Your task to perform on an android device: open app "Google Pay: Save, Pay, Manage" (install if not already installed) Image 0: 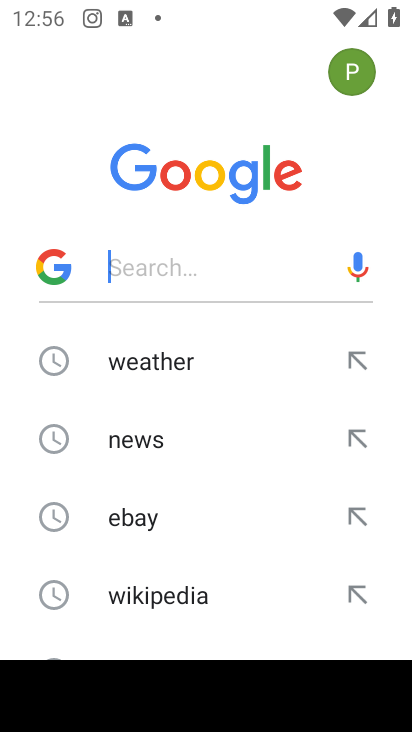
Step 0: press back button
Your task to perform on an android device: open app "Google Pay: Save, Pay, Manage" (install if not already installed) Image 1: 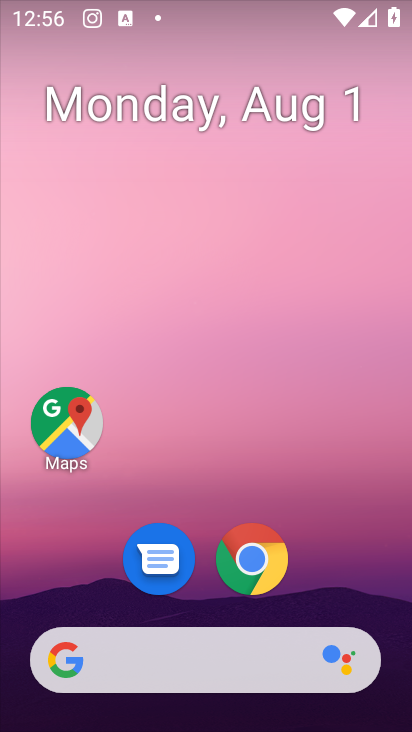
Step 1: drag from (94, 569) to (254, 3)
Your task to perform on an android device: open app "Google Pay: Save, Pay, Manage" (install if not already installed) Image 2: 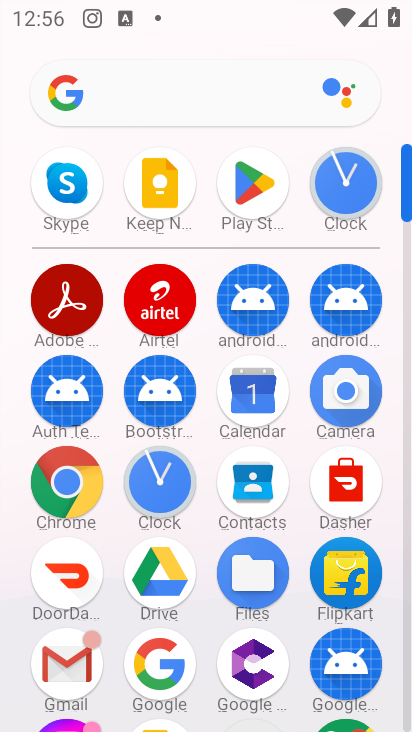
Step 2: drag from (197, 591) to (289, 154)
Your task to perform on an android device: open app "Google Pay: Save, Pay, Manage" (install if not already installed) Image 3: 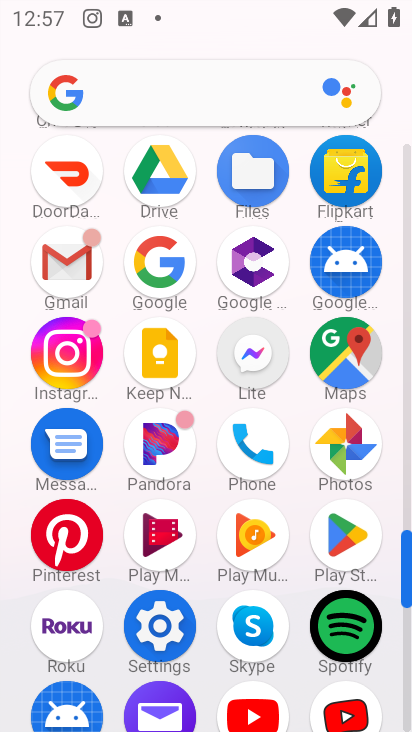
Step 3: drag from (214, 603) to (300, 122)
Your task to perform on an android device: open app "Google Pay: Save, Pay, Manage" (install if not already installed) Image 4: 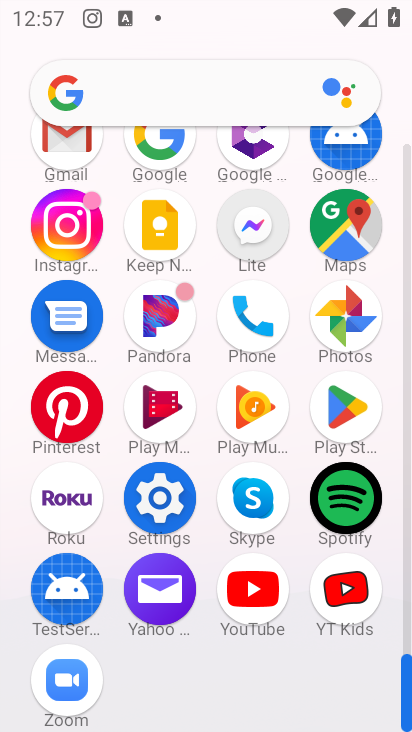
Step 4: click (126, 89)
Your task to perform on an android device: open app "Google Pay: Save, Pay, Manage" (install if not already installed) Image 5: 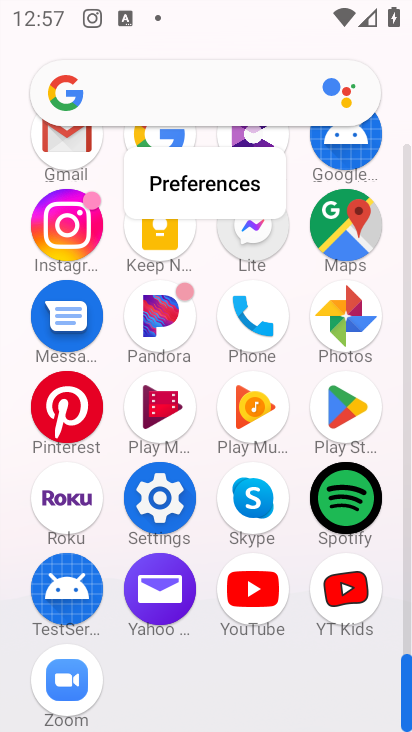
Step 5: type "google pay"
Your task to perform on an android device: open app "Google Pay: Save, Pay, Manage" (install if not already installed) Image 6: 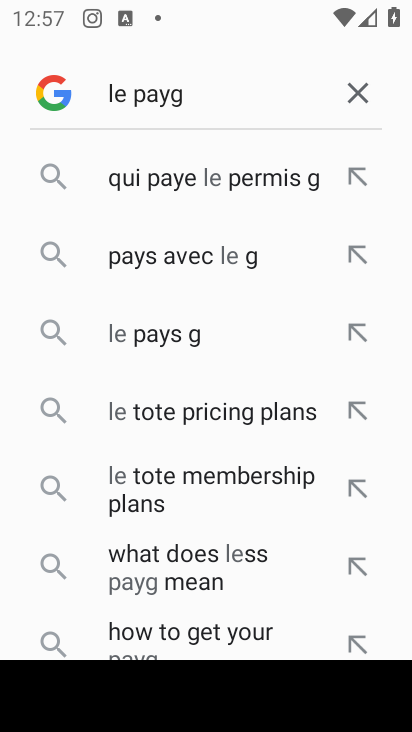
Step 6: click (353, 86)
Your task to perform on an android device: open app "Google Pay: Save, Pay, Manage" (install if not already installed) Image 7: 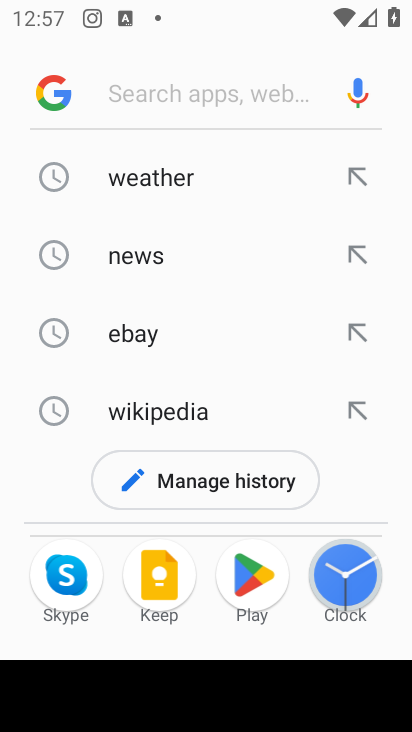
Step 7: press home button
Your task to perform on an android device: open app "Google Pay: Save, Pay, Manage" (install if not already installed) Image 8: 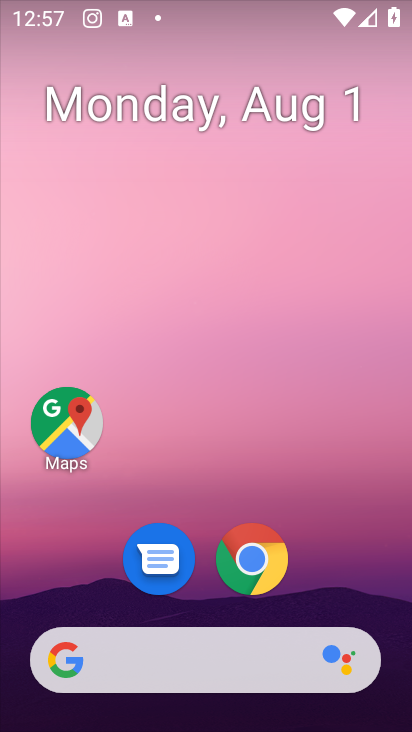
Step 8: drag from (68, 543) to (237, 11)
Your task to perform on an android device: open app "Google Pay: Save, Pay, Manage" (install if not already installed) Image 9: 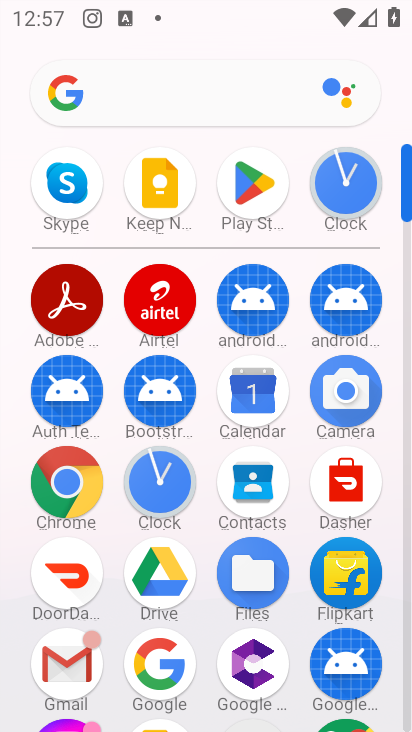
Step 9: click (259, 186)
Your task to perform on an android device: open app "Google Pay: Save, Pay, Manage" (install if not already installed) Image 10: 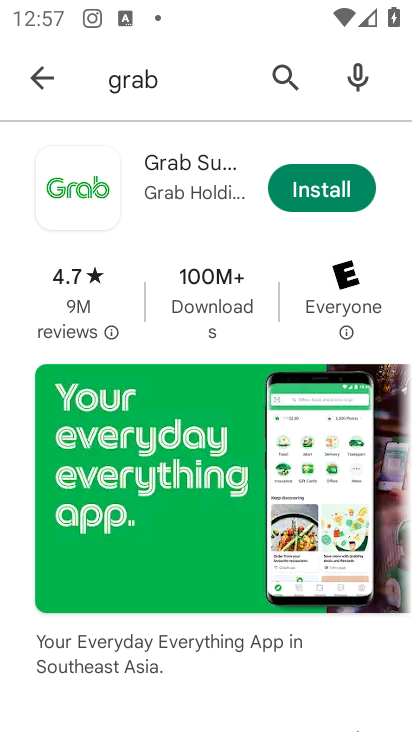
Step 10: click (291, 74)
Your task to perform on an android device: open app "Google Pay: Save, Pay, Manage" (install if not already installed) Image 11: 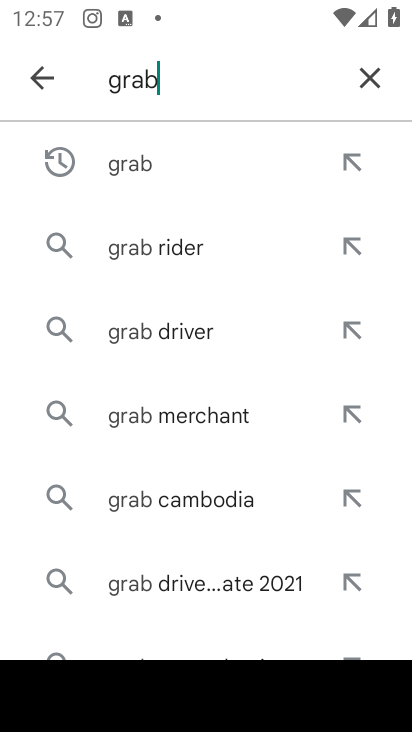
Step 11: click (372, 63)
Your task to perform on an android device: open app "Google Pay: Save, Pay, Manage" (install if not already installed) Image 12: 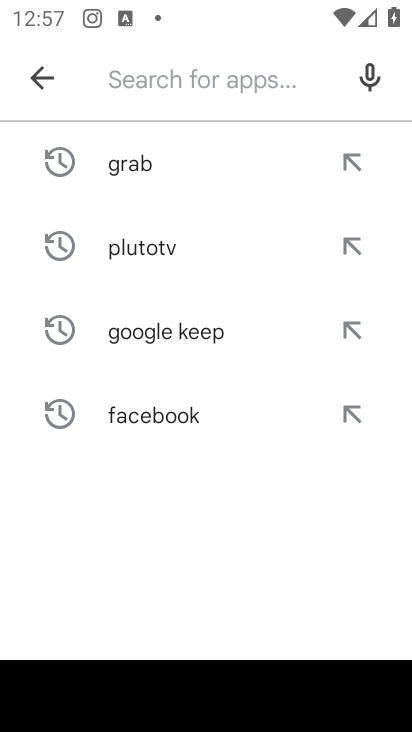
Step 12: click (152, 76)
Your task to perform on an android device: open app "Google Pay: Save, Pay, Manage" (install if not already installed) Image 13: 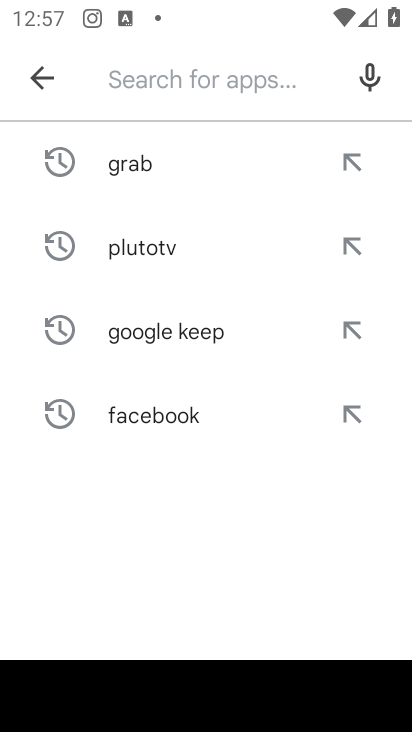
Step 13: type "google pay"
Your task to perform on an android device: open app "Google Pay: Save, Pay, Manage" (install if not already installed) Image 14: 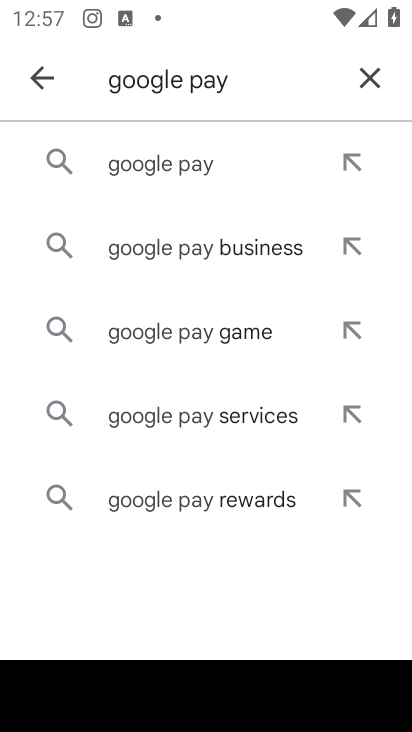
Step 14: click (149, 131)
Your task to perform on an android device: open app "Google Pay: Save, Pay, Manage" (install if not already installed) Image 15: 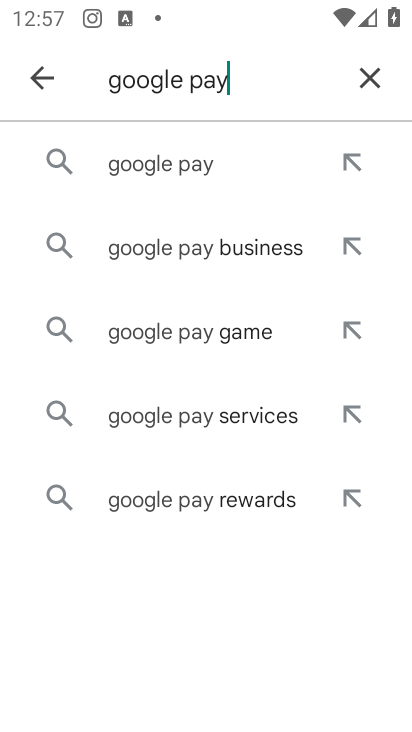
Step 15: click (177, 159)
Your task to perform on an android device: open app "Google Pay: Save, Pay, Manage" (install if not already installed) Image 16: 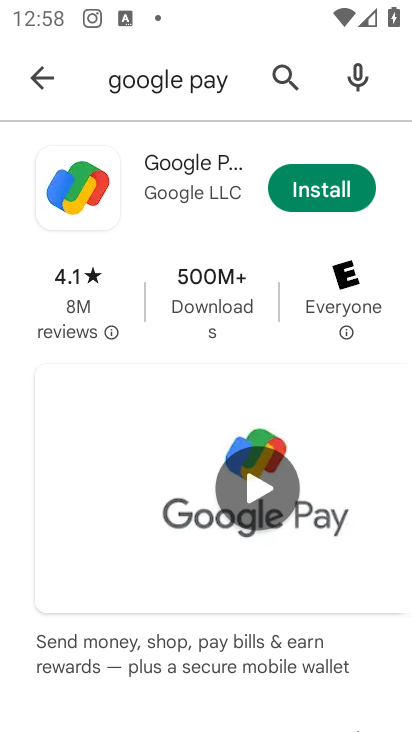
Step 16: click (323, 183)
Your task to perform on an android device: open app "Google Pay: Save, Pay, Manage" (install if not already installed) Image 17: 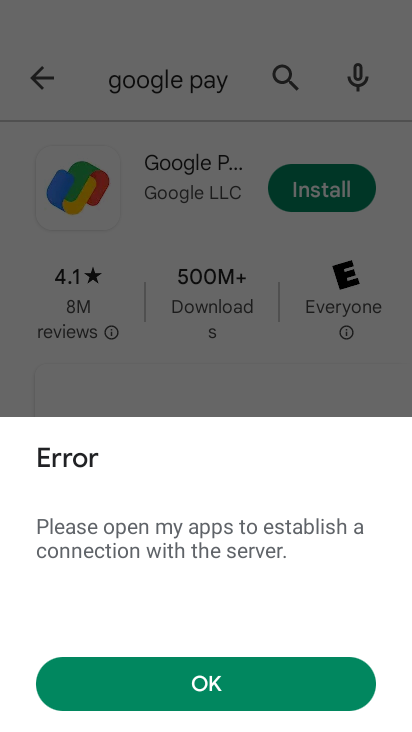
Step 17: click (242, 672)
Your task to perform on an android device: open app "Google Pay: Save, Pay, Manage" (install if not already installed) Image 18: 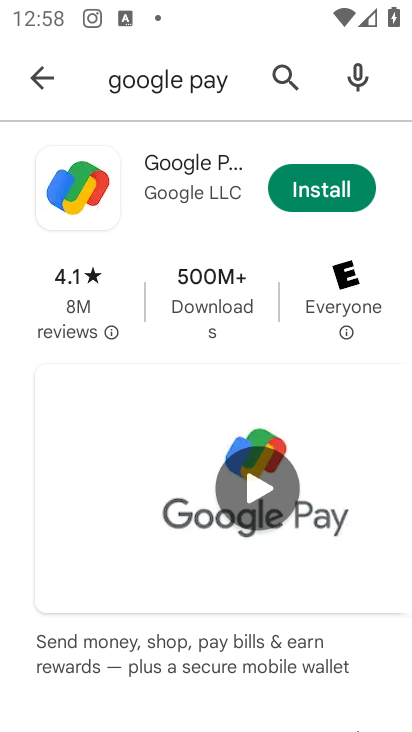
Step 18: task complete